Your task to perform on an android device: Open my contact list Image 0: 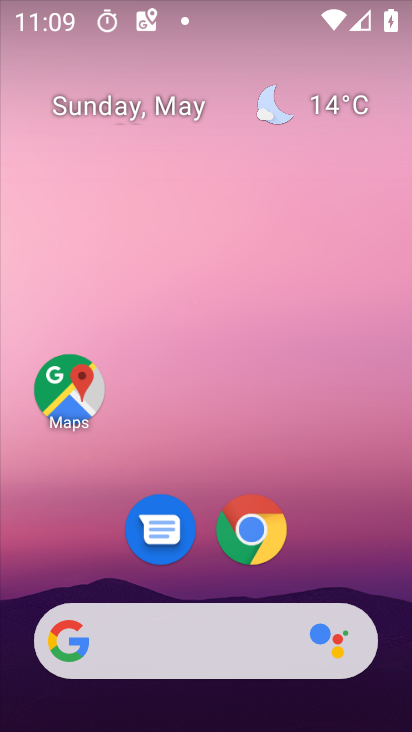
Step 0: drag from (195, 652) to (244, 205)
Your task to perform on an android device: Open my contact list Image 1: 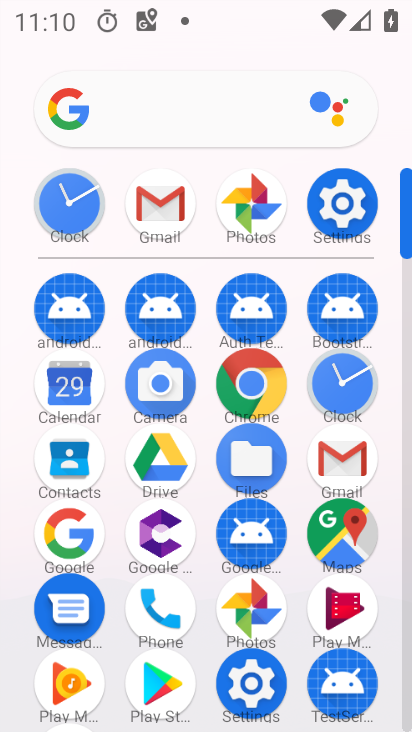
Step 1: click (77, 470)
Your task to perform on an android device: Open my contact list Image 2: 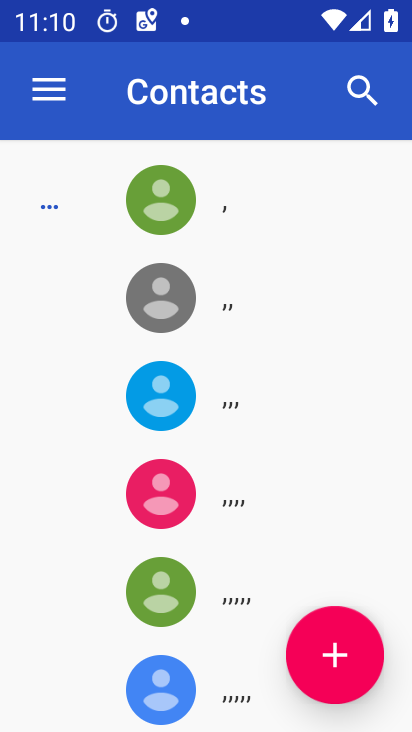
Step 2: task complete